Your task to perform on an android device: Go to CNN.com Image 0: 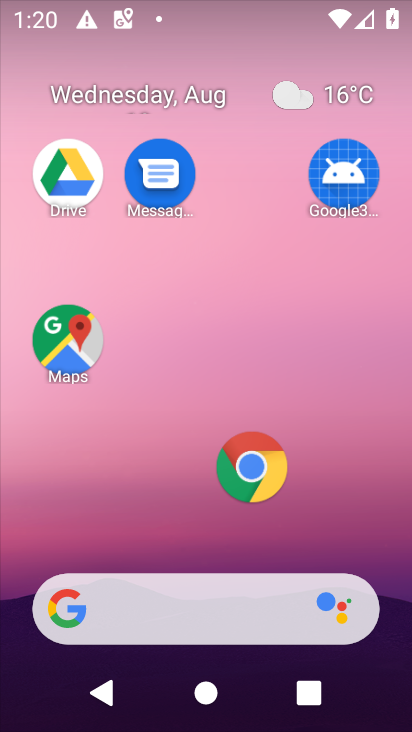
Step 0: click (147, 583)
Your task to perform on an android device: Go to CNN.com Image 1: 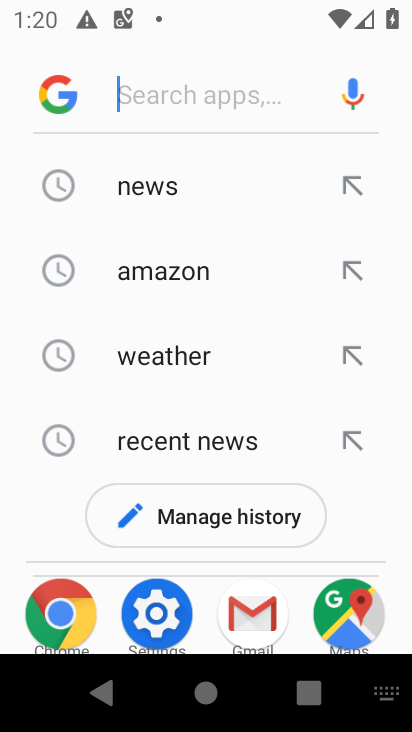
Step 1: type "cnn"
Your task to perform on an android device: Go to CNN.com Image 2: 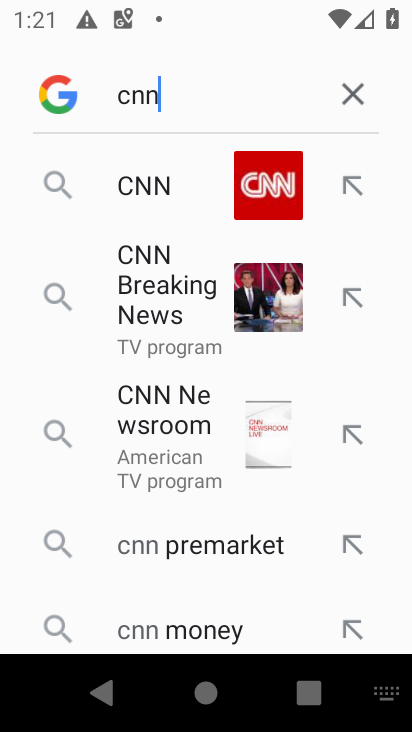
Step 2: click (209, 174)
Your task to perform on an android device: Go to CNN.com Image 3: 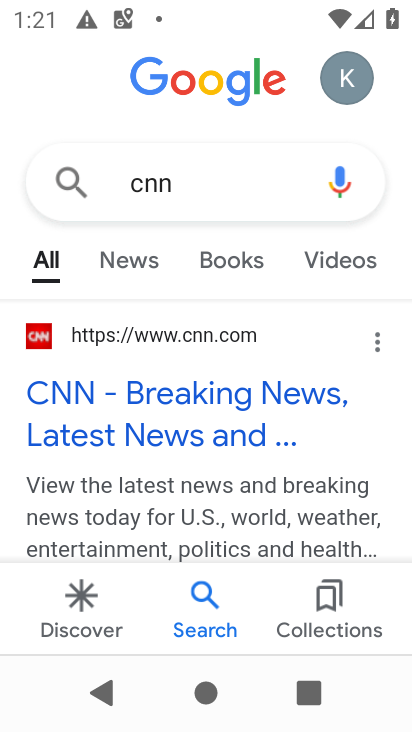
Step 3: click (164, 387)
Your task to perform on an android device: Go to CNN.com Image 4: 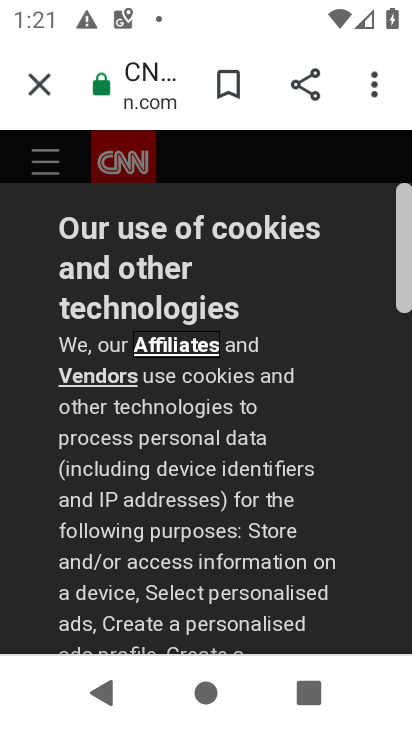
Step 4: task complete